Your task to perform on an android device: toggle airplane mode Image 0: 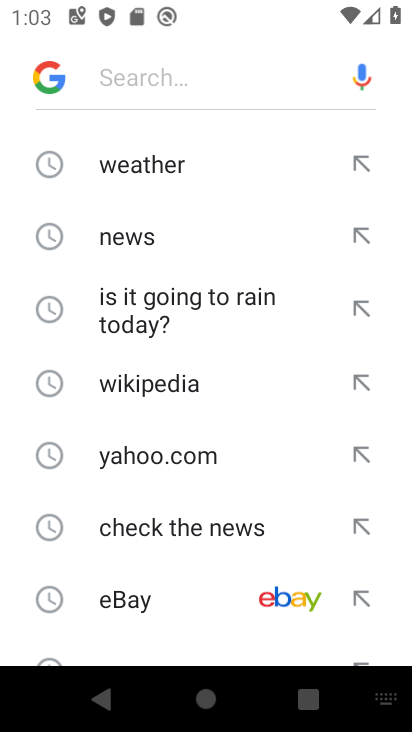
Step 0: press home button
Your task to perform on an android device: toggle airplane mode Image 1: 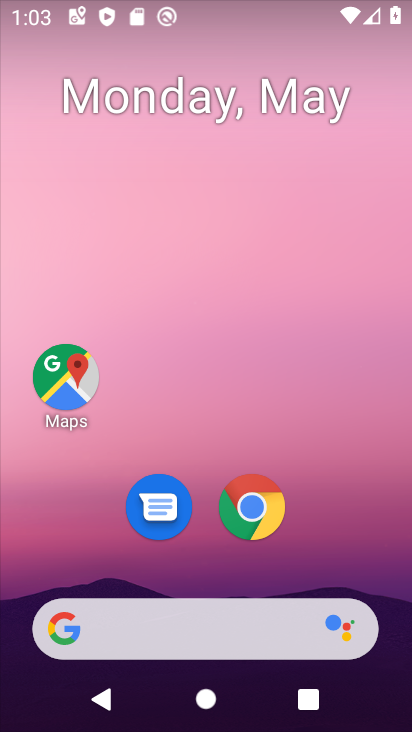
Step 1: drag from (230, 714) to (224, 165)
Your task to perform on an android device: toggle airplane mode Image 2: 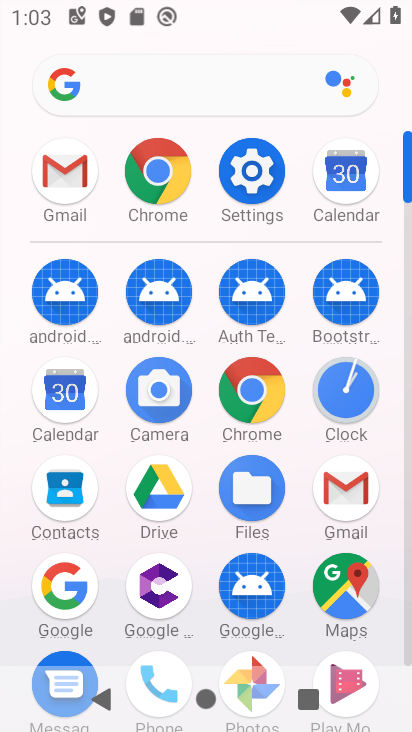
Step 2: click (245, 163)
Your task to perform on an android device: toggle airplane mode Image 3: 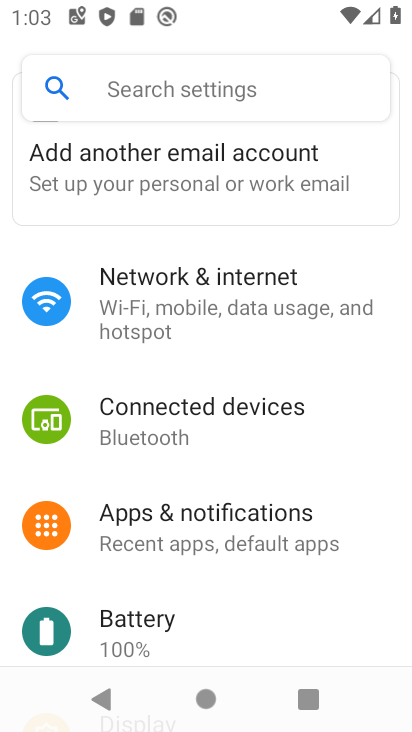
Step 3: click (156, 305)
Your task to perform on an android device: toggle airplane mode Image 4: 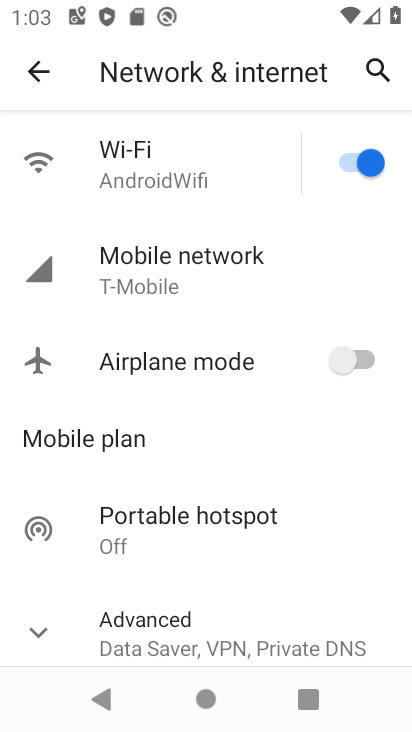
Step 4: click (367, 358)
Your task to perform on an android device: toggle airplane mode Image 5: 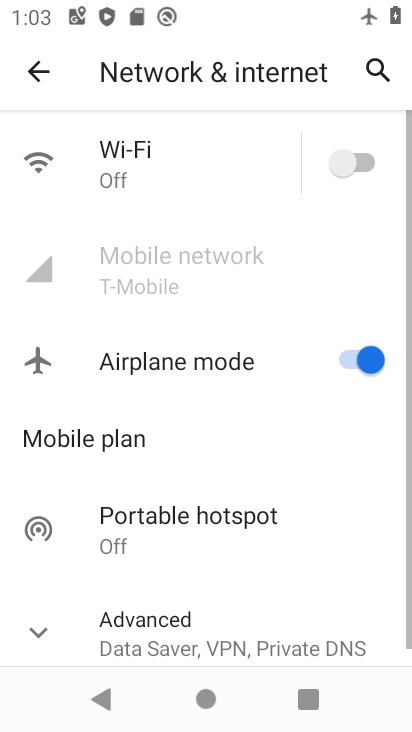
Step 5: task complete